Your task to perform on an android device: check out phone information Image 0: 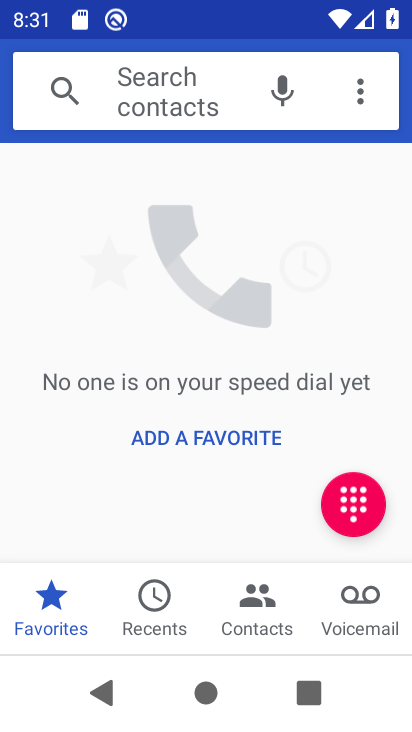
Step 0: press home button
Your task to perform on an android device: check out phone information Image 1: 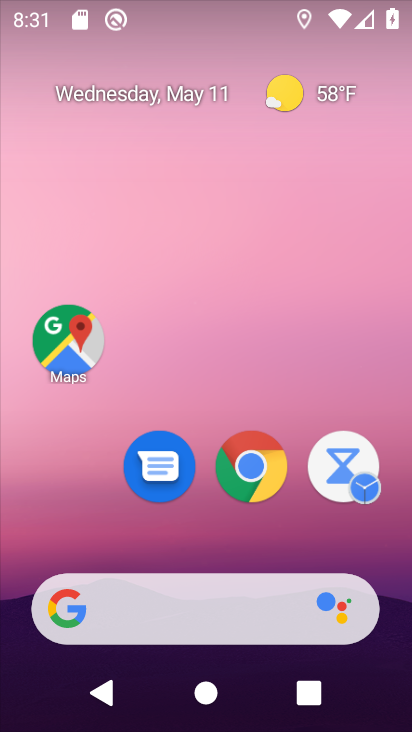
Step 1: drag from (164, 550) to (280, 11)
Your task to perform on an android device: check out phone information Image 2: 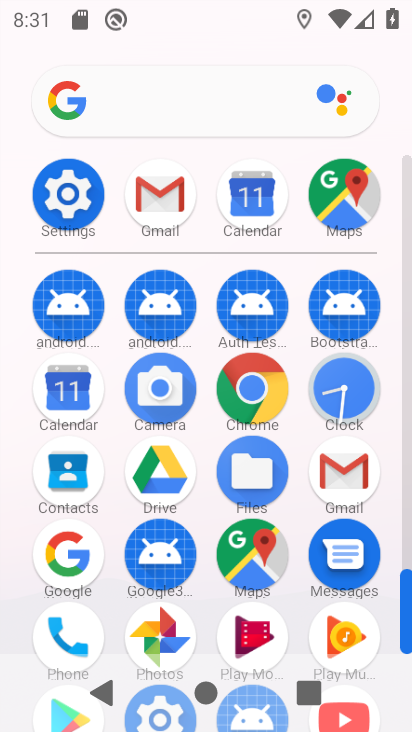
Step 2: click (50, 191)
Your task to perform on an android device: check out phone information Image 3: 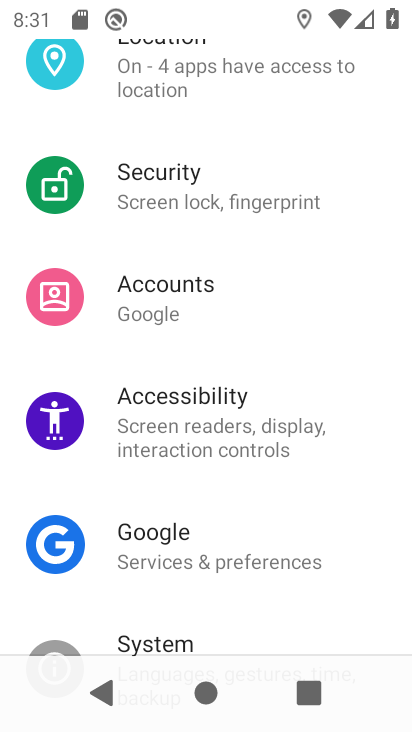
Step 3: drag from (203, 538) to (245, 380)
Your task to perform on an android device: check out phone information Image 4: 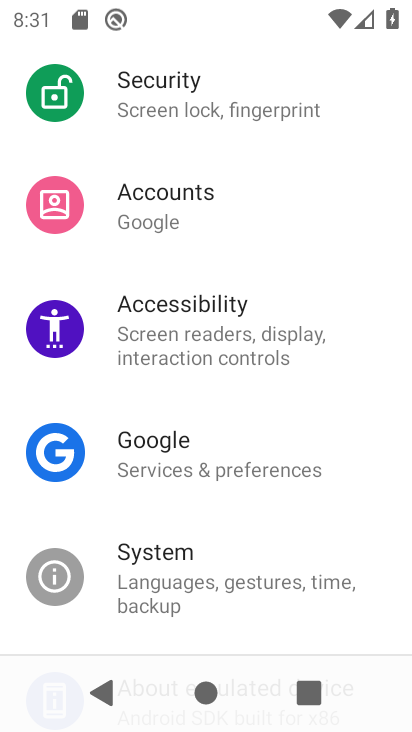
Step 4: drag from (79, 568) to (120, 424)
Your task to perform on an android device: check out phone information Image 5: 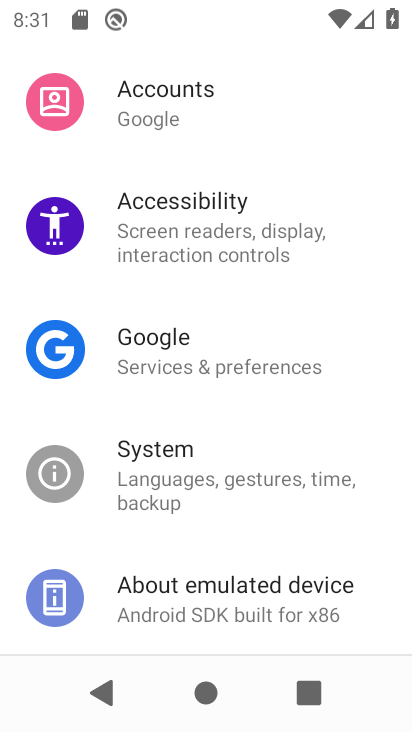
Step 5: click (177, 606)
Your task to perform on an android device: check out phone information Image 6: 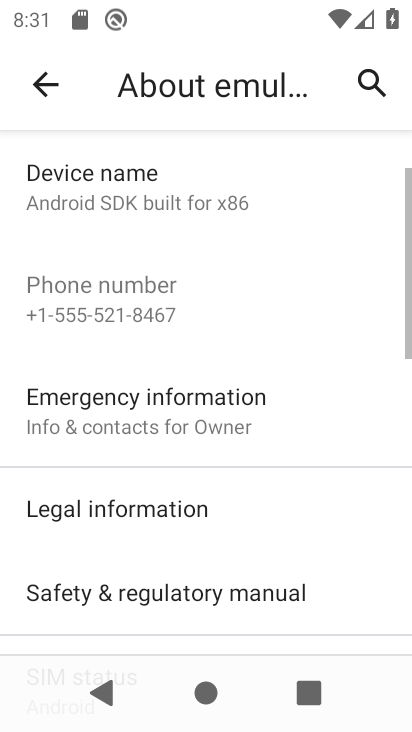
Step 6: task complete